Your task to perform on an android device: turn vacation reply on in the gmail app Image 0: 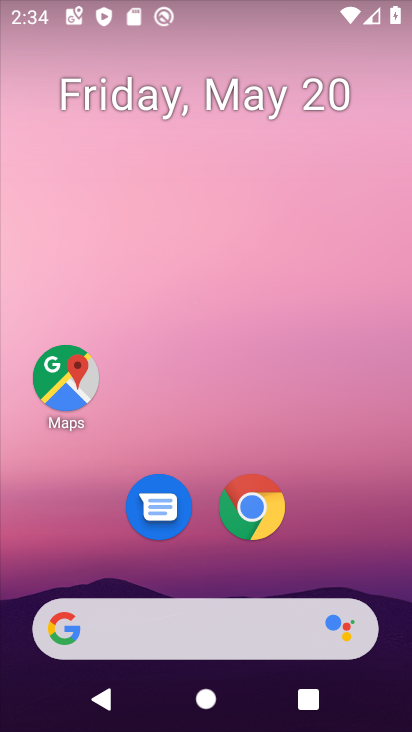
Step 0: drag from (237, 724) to (253, 122)
Your task to perform on an android device: turn vacation reply on in the gmail app Image 1: 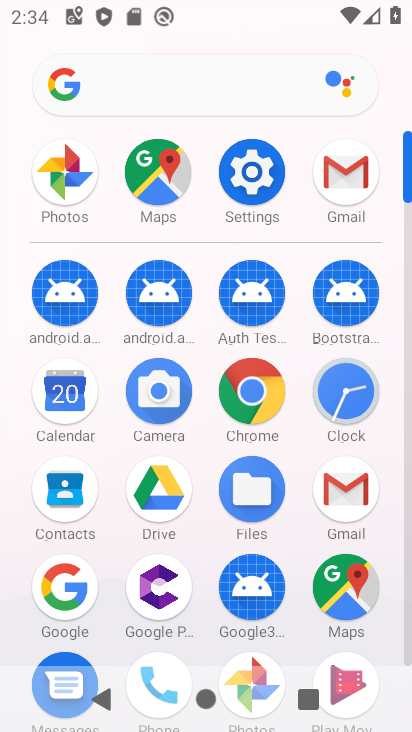
Step 1: click (341, 491)
Your task to perform on an android device: turn vacation reply on in the gmail app Image 2: 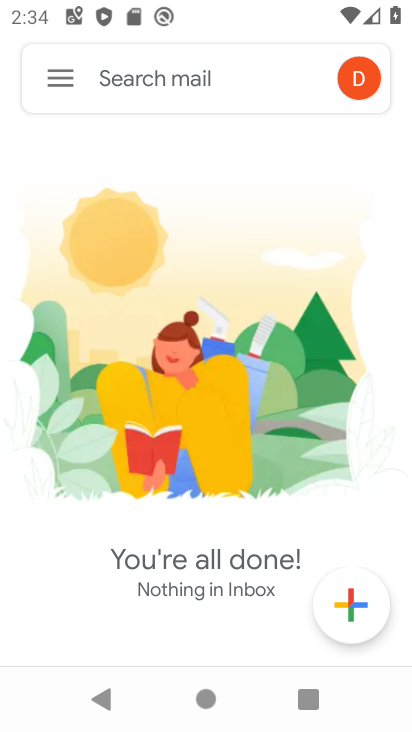
Step 2: click (58, 75)
Your task to perform on an android device: turn vacation reply on in the gmail app Image 3: 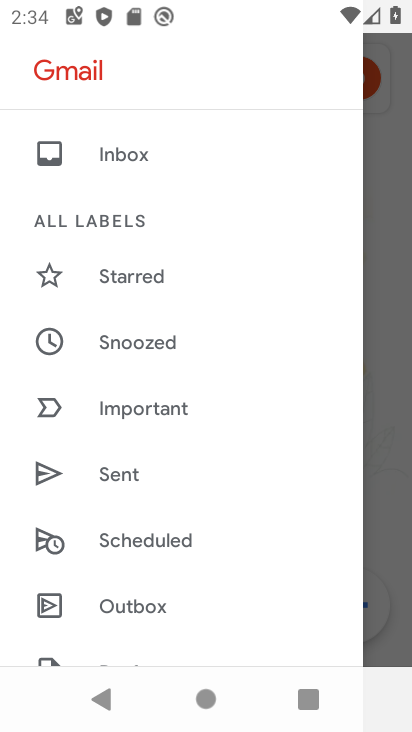
Step 3: drag from (135, 596) to (139, 250)
Your task to perform on an android device: turn vacation reply on in the gmail app Image 4: 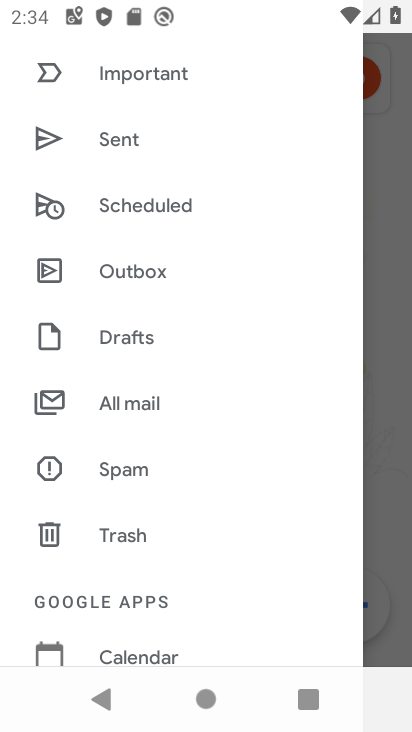
Step 4: drag from (145, 428) to (145, 165)
Your task to perform on an android device: turn vacation reply on in the gmail app Image 5: 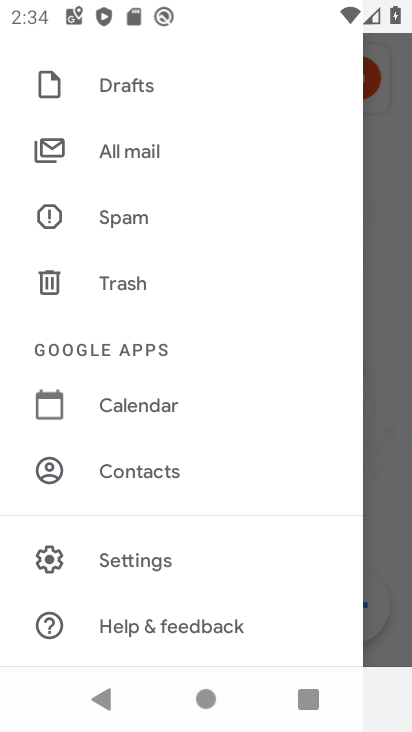
Step 5: click (145, 556)
Your task to perform on an android device: turn vacation reply on in the gmail app Image 6: 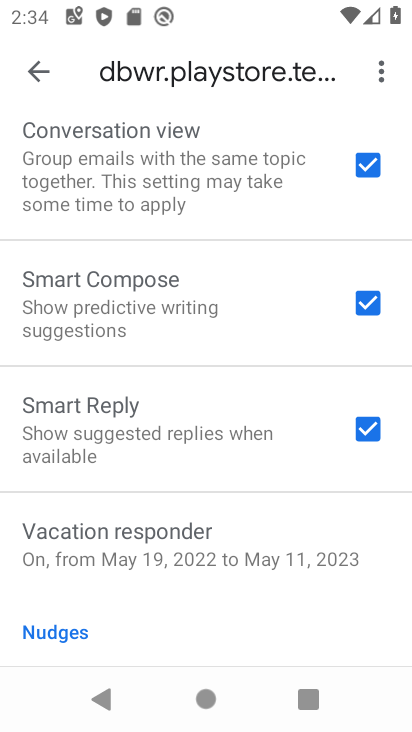
Step 6: click (160, 545)
Your task to perform on an android device: turn vacation reply on in the gmail app Image 7: 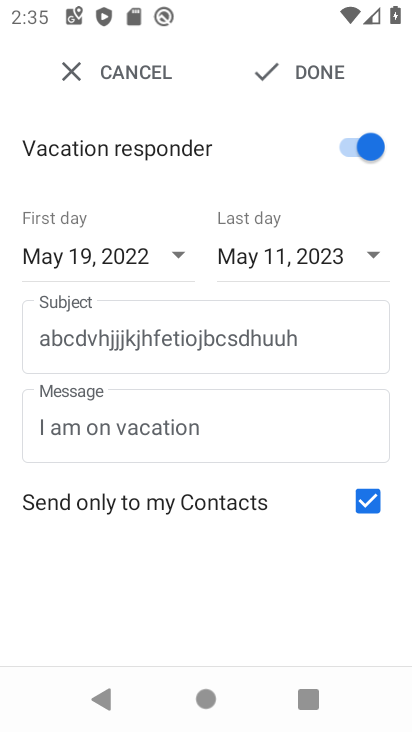
Step 7: task complete